Your task to perform on an android device: Show me productivity apps on the Play Store Image 0: 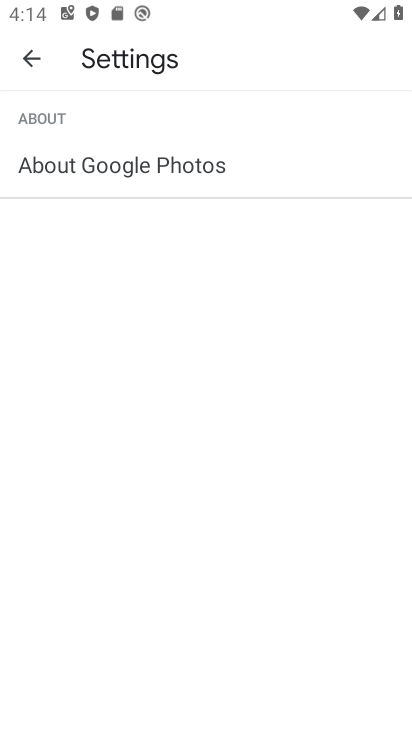
Step 0: click (48, 57)
Your task to perform on an android device: Show me productivity apps on the Play Store Image 1: 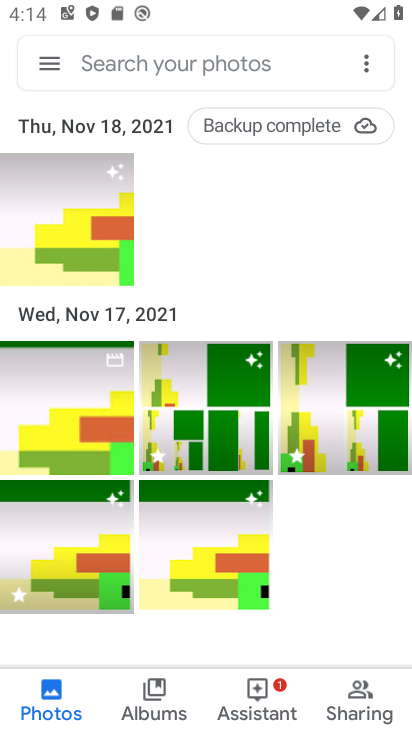
Step 1: click (42, 60)
Your task to perform on an android device: Show me productivity apps on the Play Store Image 2: 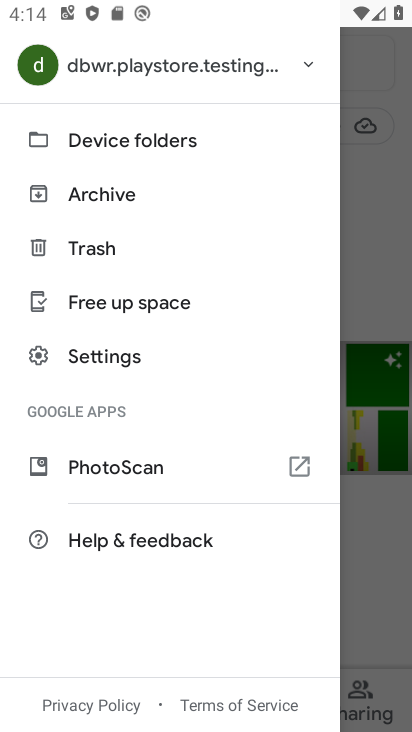
Step 2: click (376, 582)
Your task to perform on an android device: Show me productivity apps on the Play Store Image 3: 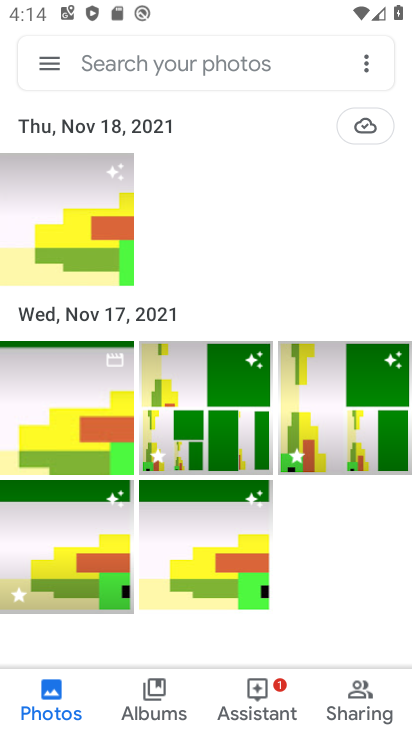
Step 3: press back button
Your task to perform on an android device: Show me productivity apps on the Play Store Image 4: 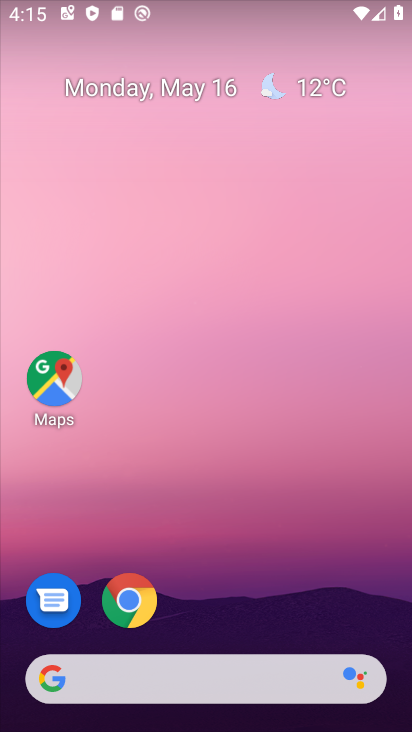
Step 4: drag from (213, 635) to (209, 294)
Your task to perform on an android device: Show me productivity apps on the Play Store Image 5: 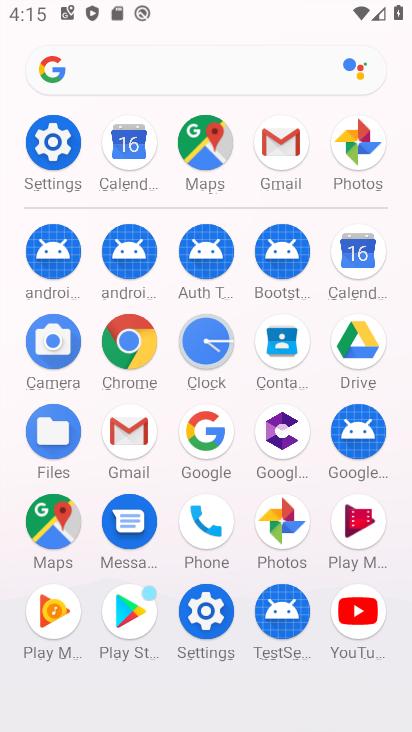
Step 5: click (128, 629)
Your task to perform on an android device: Show me productivity apps on the Play Store Image 6: 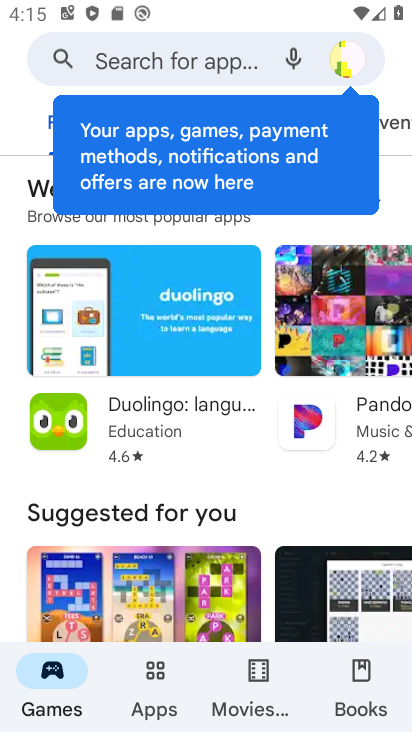
Step 6: click (150, 667)
Your task to perform on an android device: Show me productivity apps on the Play Store Image 7: 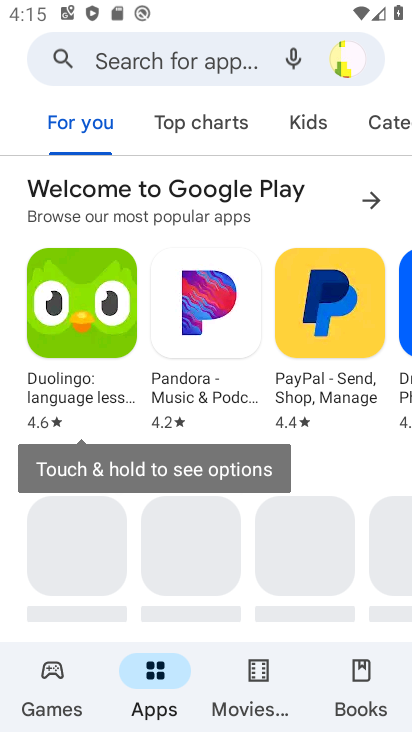
Step 7: task complete